Your task to perform on an android device: What's the weather today? Image 0: 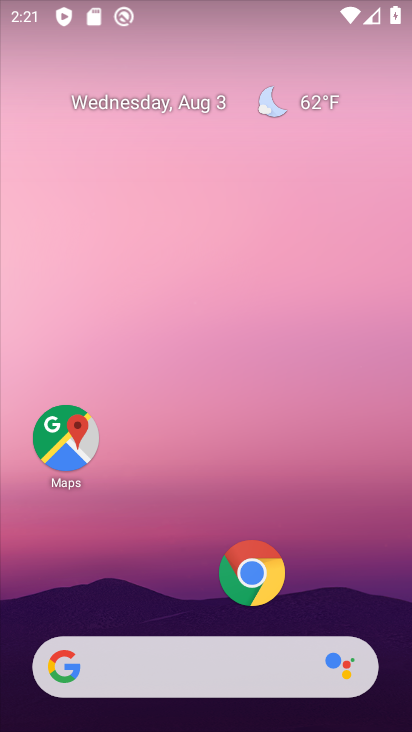
Step 0: click (273, 114)
Your task to perform on an android device: What's the weather today? Image 1: 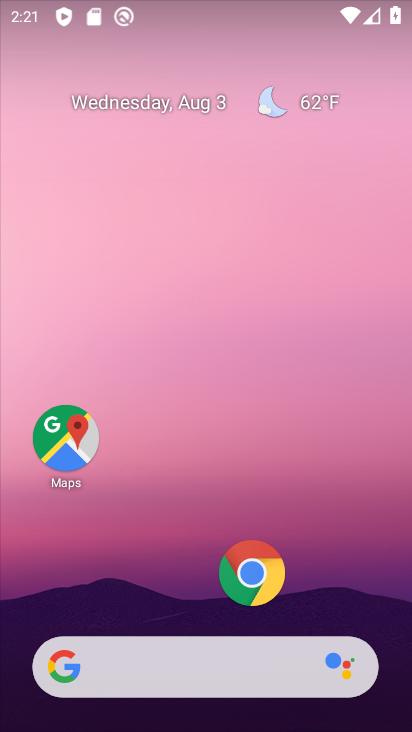
Step 1: click (277, 105)
Your task to perform on an android device: What's the weather today? Image 2: 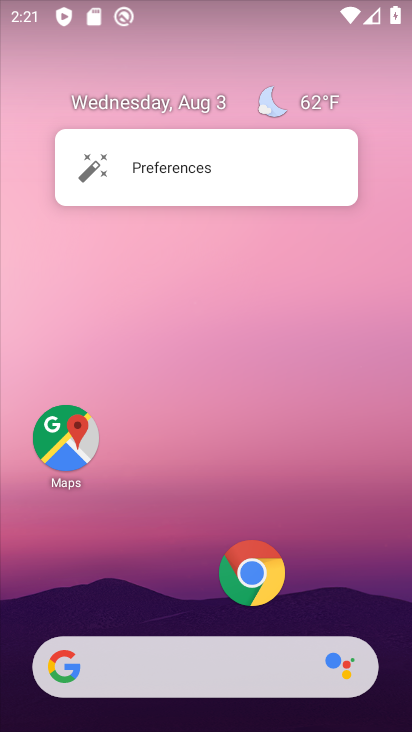
Step 2: click (327, 92)
Your task to perform on an android device: What's the weather today? Image 3: 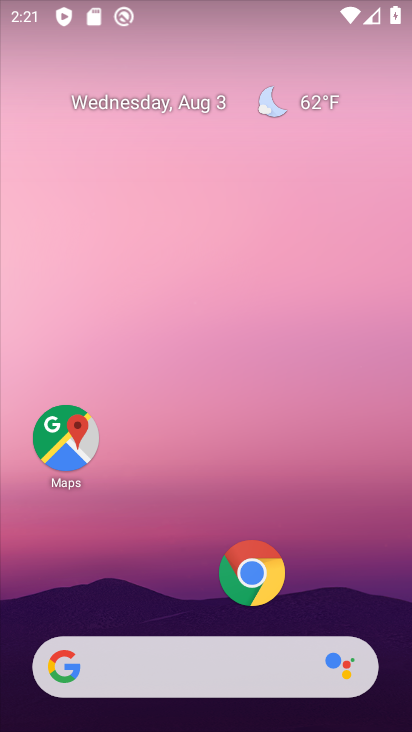
Step 3: click (324, 102)
Your task to perform on an android device: What's the weather today? Image 4: 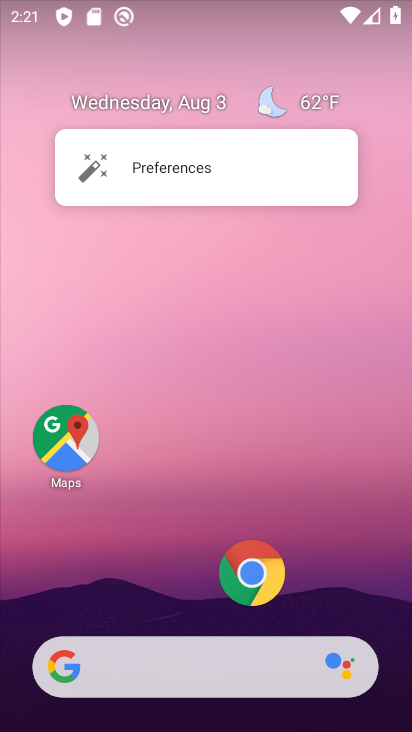
Step 4: click (324, 99)
Your task to perform on an android device: What's the weather today? Image 5: 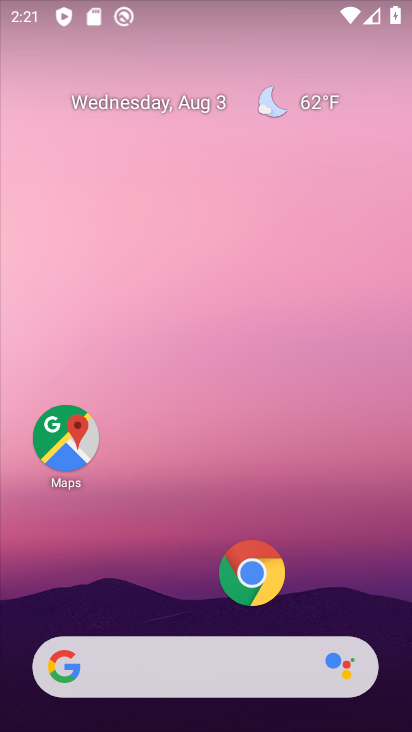
Step 5: click (324, 99)
Your task to perform on an android device: What's the weather today? Image 6: 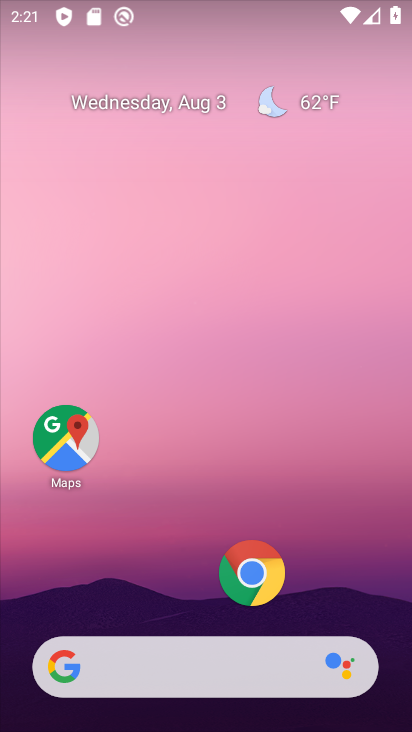
Step 6: click (309, 101)
Your task to perform on an android device: What's the weather today? Image 7: 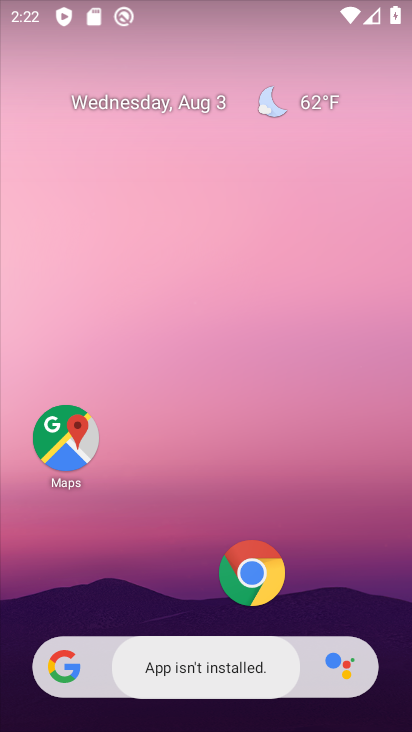
Step 7: click (308, 101)
Your task to perform on an android device: What's the weather today? Image 8: 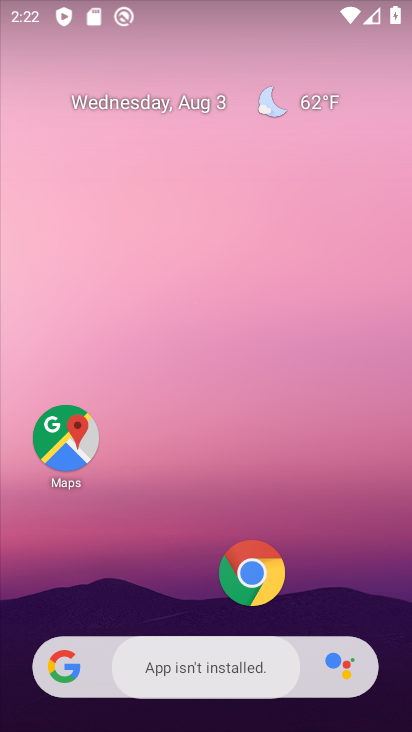
Step 8: click (307, 101)
Your task to perform on an android device: What's the weather today? Image 9: 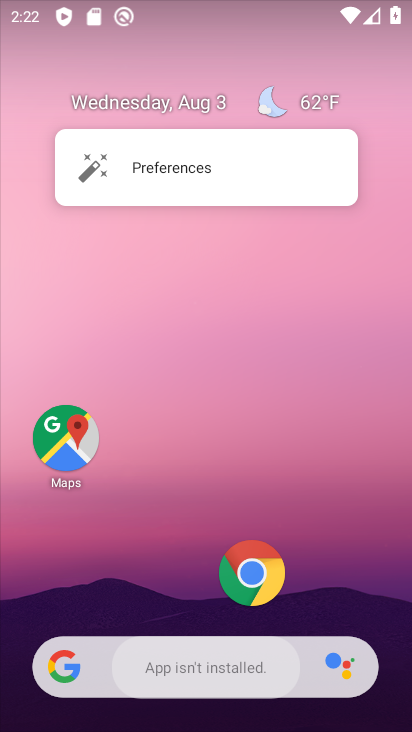
Step 9: click (308, 99)
Your task to perform on an android device: What's the weather today? Image 10: 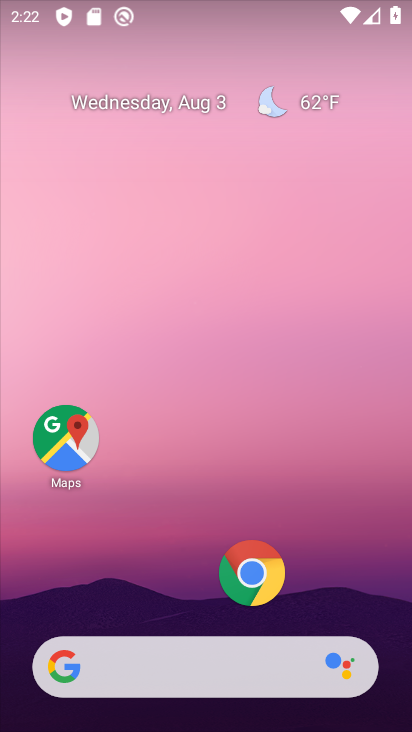
Step 10: click (298, 105)
Your task to perform on an android device: What's the weather today? Image 11: 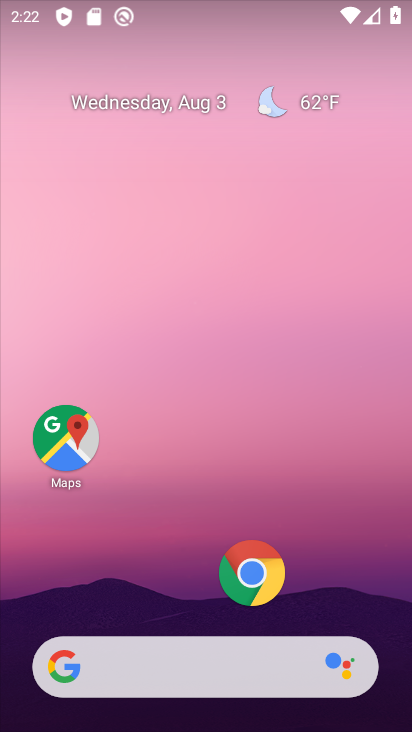
Step 11: click (308, 107)
Your task to perform on an android device: What's the weather today? Image 12: 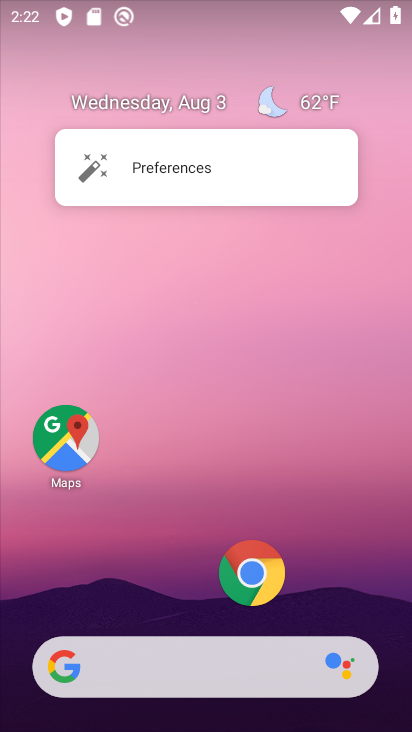
Step 12: click (326, 100)
Your task to perform on an android device: What's the weather today? Image 13: 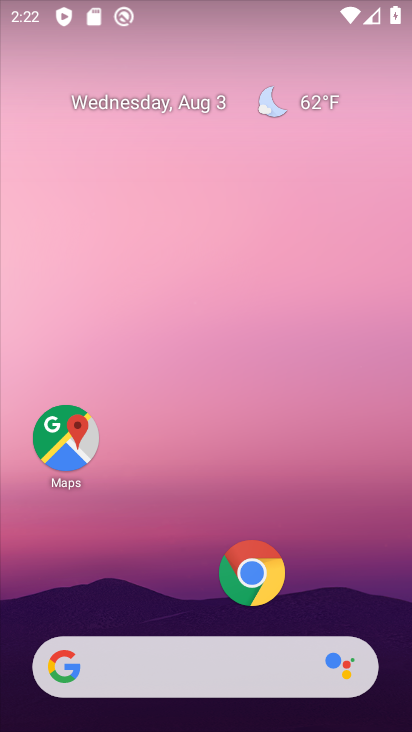
Step 13: click (220, 667)
Your task to perform on an android device: What's the weather today? Image 14: 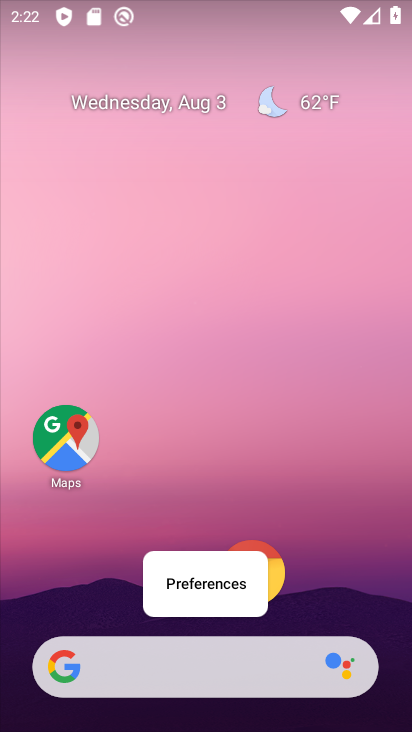
Step 14: click (220, 668)
Your task to perform on an android device: What's the weather today? Image 15: 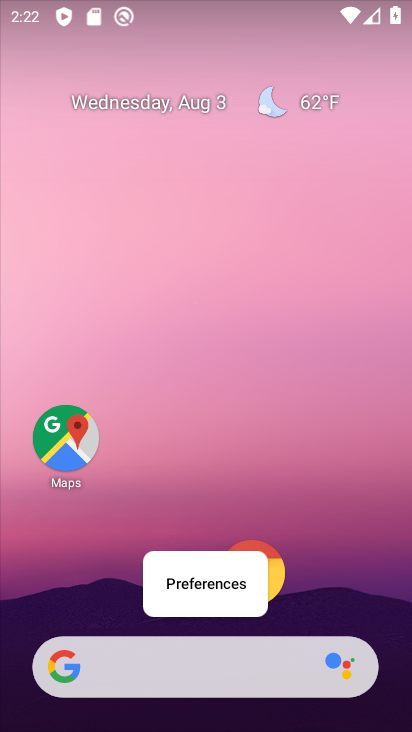
Step 15: click (141, 658)
Your task to perform on an android device: What's the weather today? Image 16: 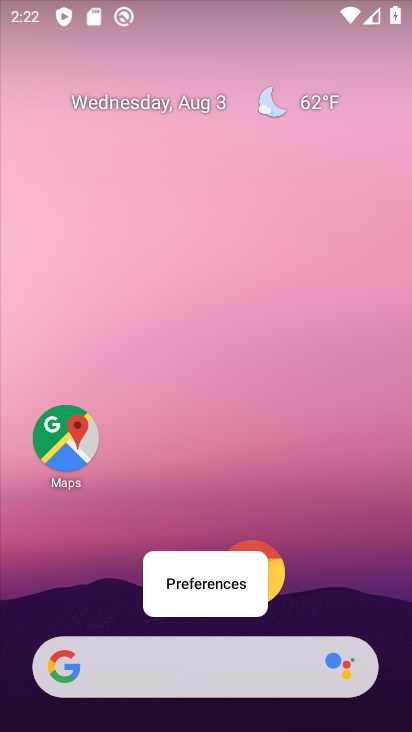
Step 16: click (189, 654)
Your task to perform on an android device: What's the weather today? Image 17: 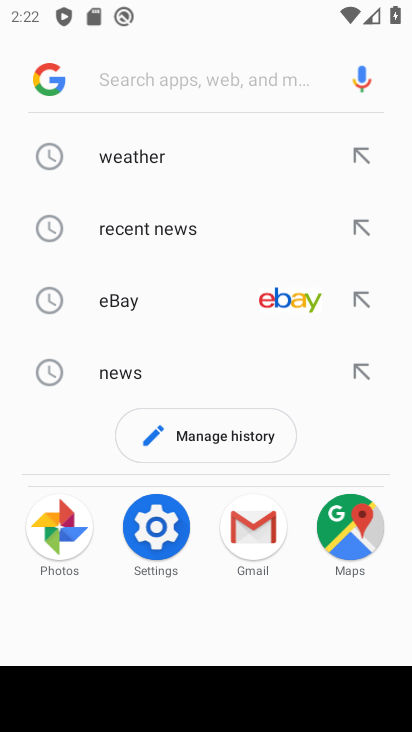
Step 17: click (189, 661)
Your task to perform on an android device: What's the weather today? Image 18: 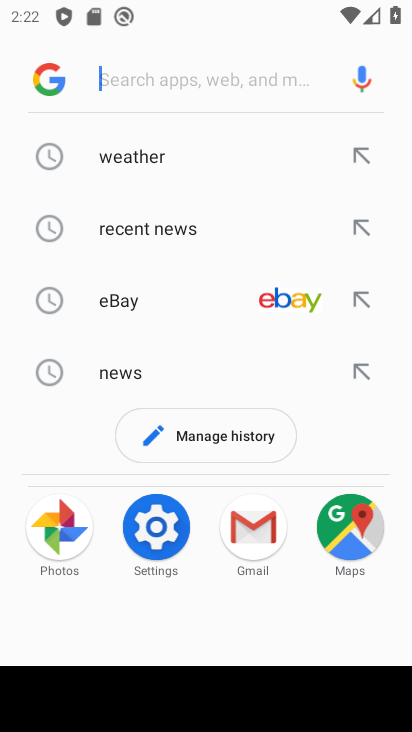
Step 18: click (153, 163)
Your task to perform on an android device: What's the weather today? Image 19: 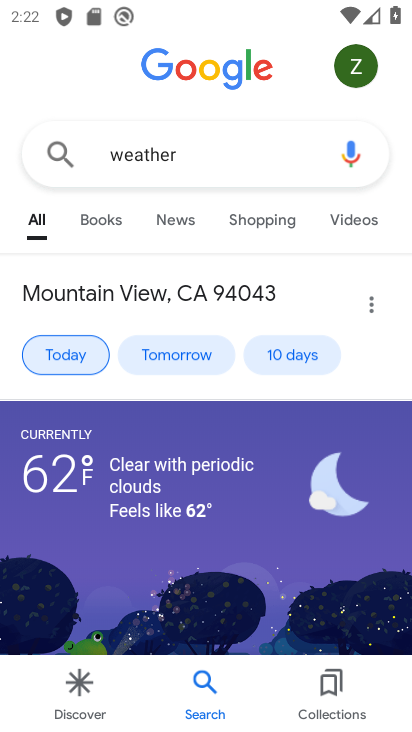
Step 19: task complete